Your task to perform on an android device: turn on priority inbox in the gmail app Image 0: 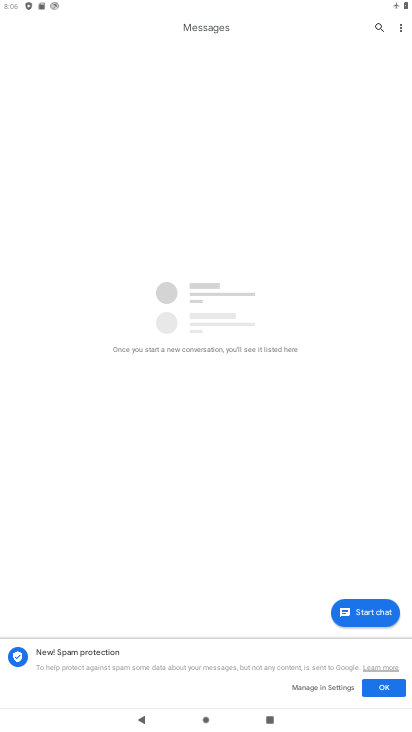
Step 0: press home button
Your task to perform on an android device: turn on priority inbox in the gmail app Image 1: 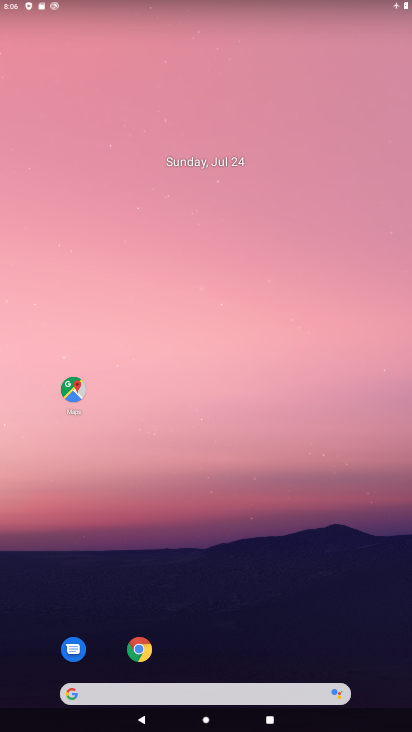
Step 1: drag from (259, 684) to (222, 124)
Your task to perform on an android device: turn on priority inbox in the gmail app Image 2: 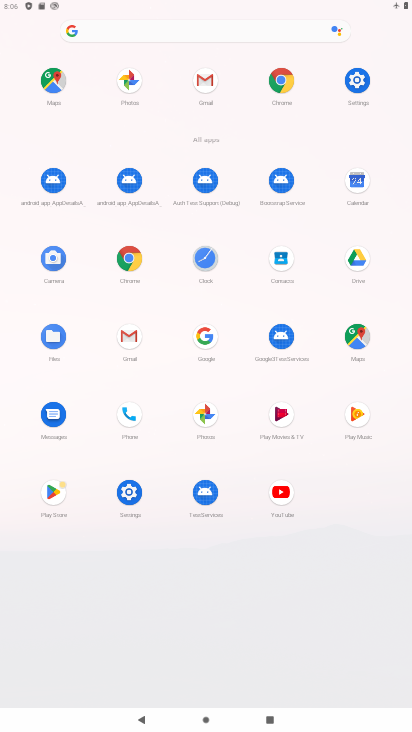
Step 2: click (126, 346)
Your task to perform on an android device: turn on priority inbox in the gmail app Image 3: 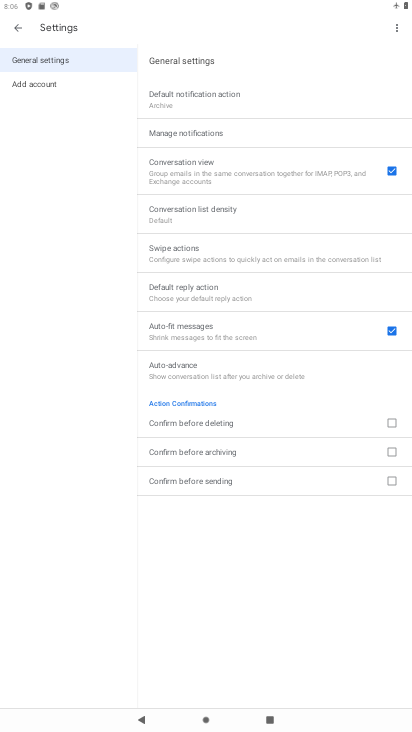
Step 3: click (23, 23)
Your task to perform on an android device: turn on priority inbox in the gmail app Image 4: 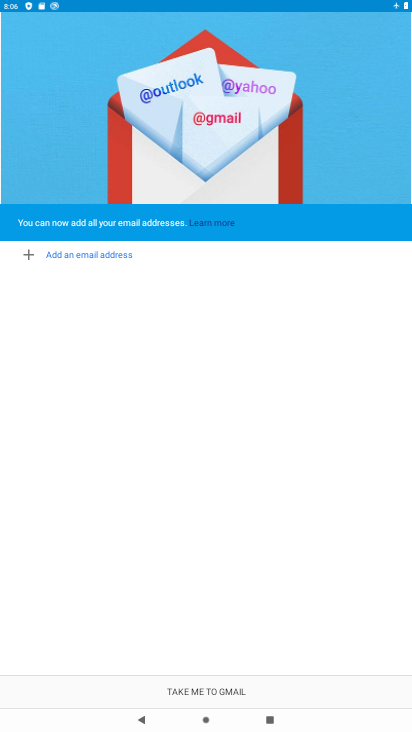
Step 4: click (182, 682)
Your task to perform on an android device: turn on priority inbox in the gmail app Image 5: 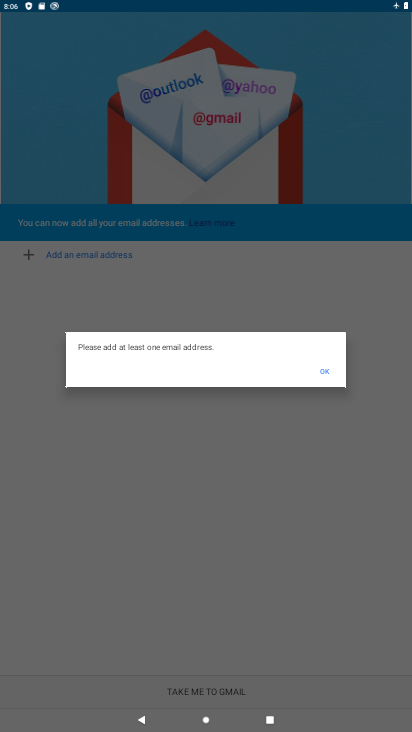
Step 5: click (329, 371)
Your task to perform on an android device: turn on priority inbox in the gmail app Image 6: 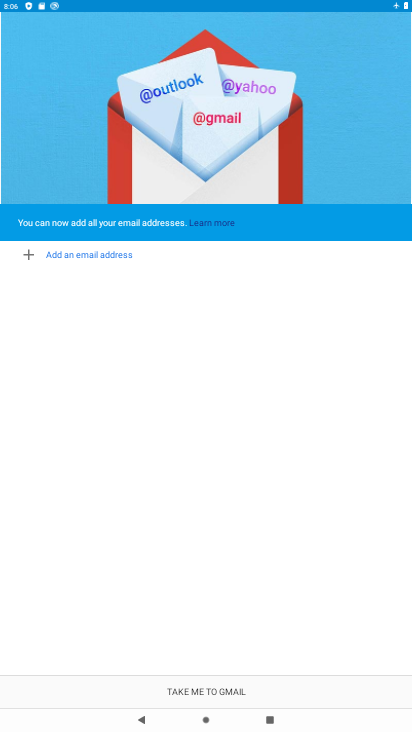
Step 6: task complete